Your task to perform on an android device: Toggle the flashlight Image 0: 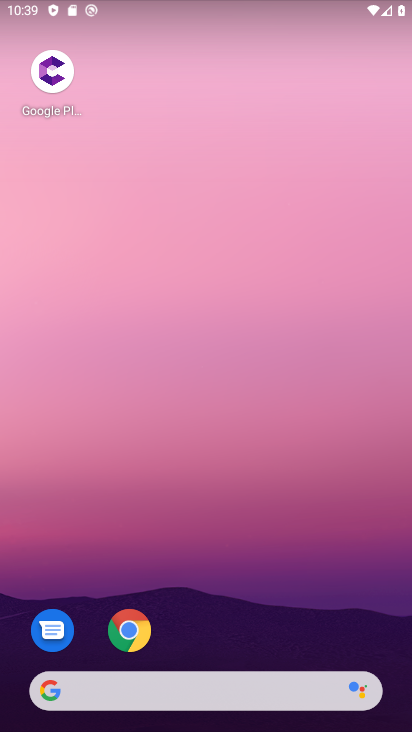
Step 0: drag from (185, 670) to (171, 301)
Your task to perform on an android device: Toggle the flashlight Image 1: 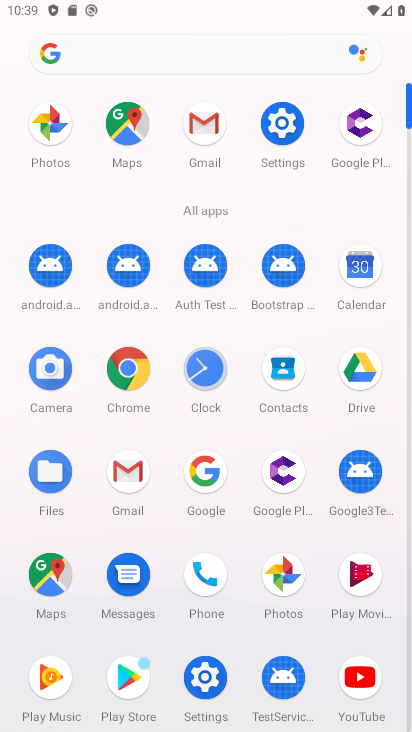
Step 1: click (200, 681)
Your task to perform on an android device: Toggle the flashlight Image 2: 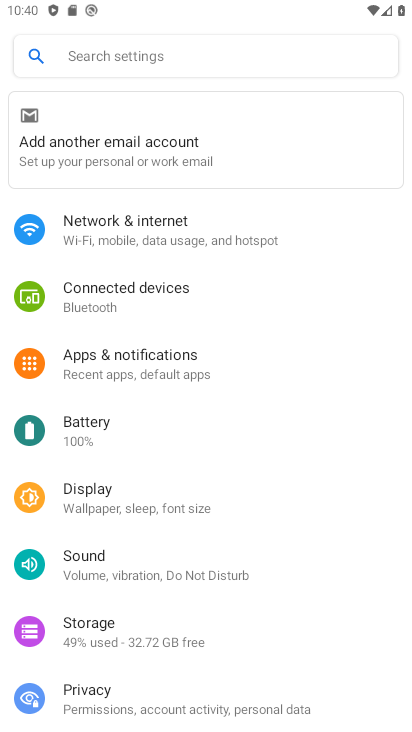
Step 2: click (124, 503)
Your task to perform on an android device: Toggle the flashlight Image 3: 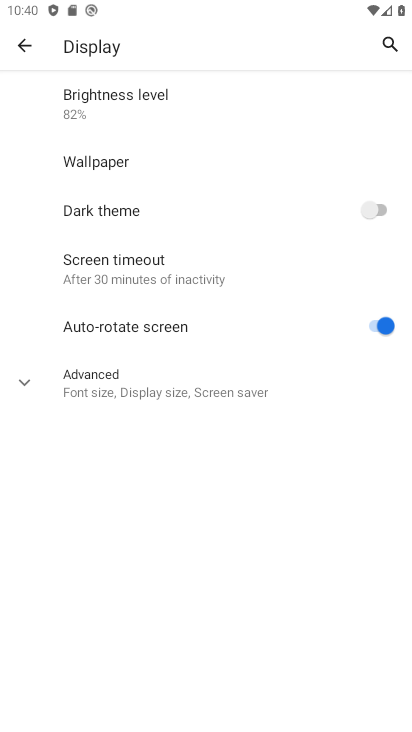
Step 3: task complete